Your task to perform on an android device: turn on javascript in the chrome app Image 0: 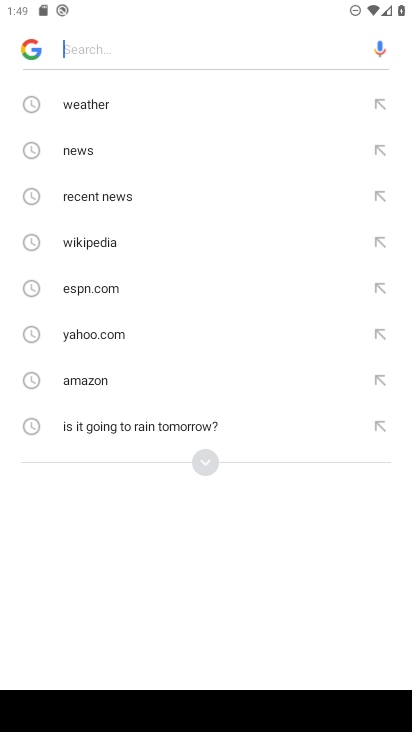
Step 0: press home button
Your task to perform on an android device: turn on javascript in the chrome app Image 1: 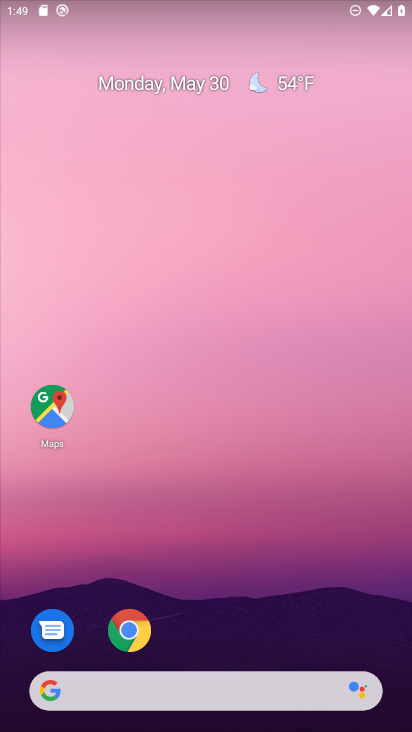
Step 1: click (127, 649)
Your task to perform on an android device: turn on javascript in the chrome app Image 2: 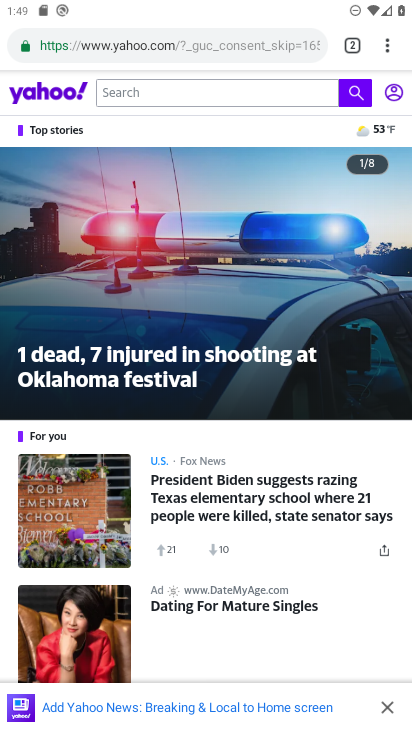
Step 2: drag from (393, 50) to (239, 555)
Your task to perform on an android device: turn on javascript in the chrome app Image 3: 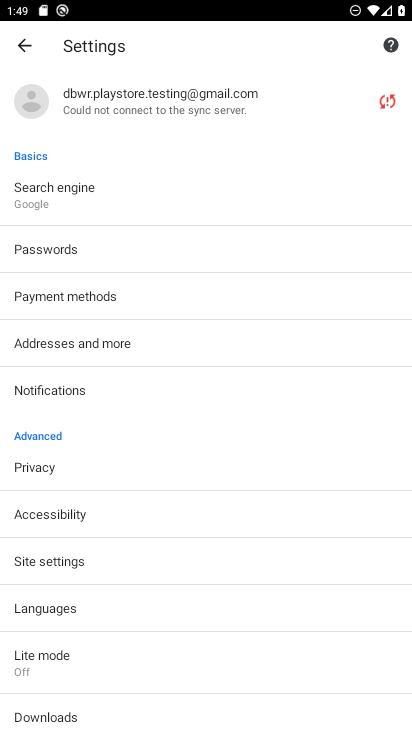
Step 3: click (105, 566)
Your task to perform on an android device: turn on javascript in the chrome app Image 4: 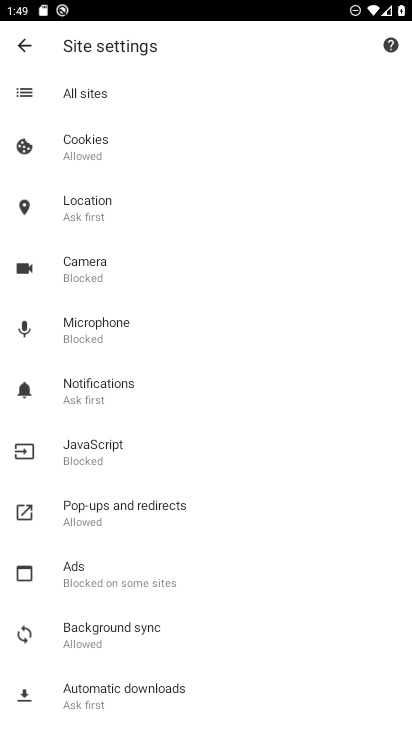
Step 4: click (126, 446)
Your task to perform on an android device: turn on javascript in the chrome app Image 5: 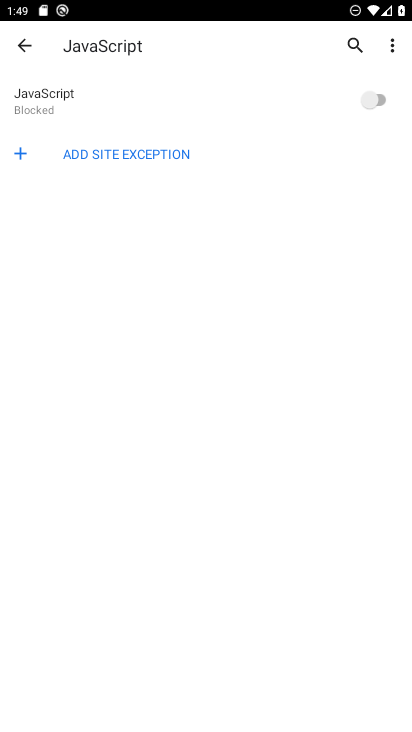
Step 5: click (376, 95)
Your task to perform on an android device: turn on javascript in the chrome app Image 6: 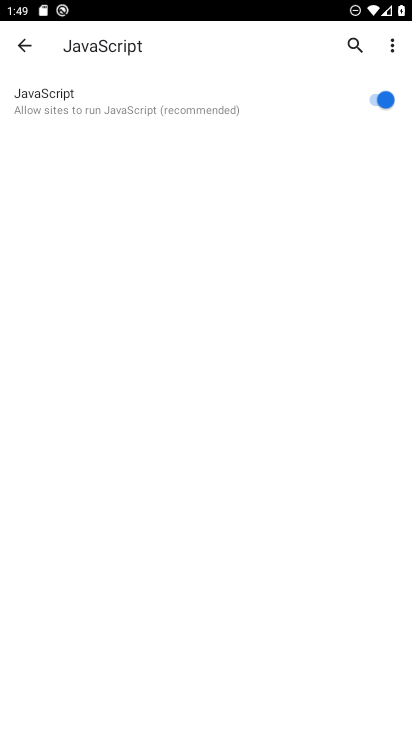
Step 6: task complete